Your task to perform on an android device: Open display settings Image 0: 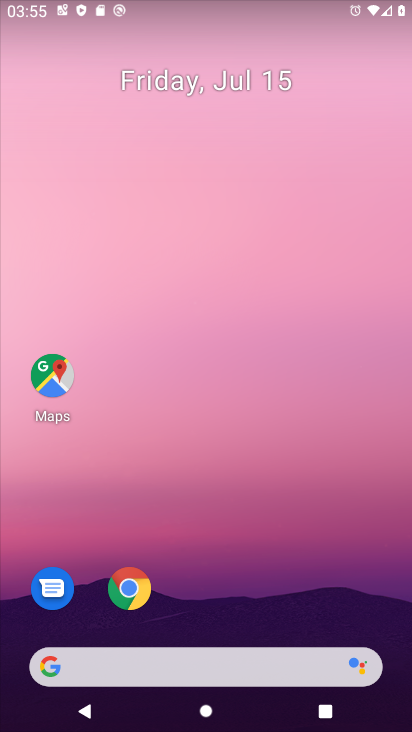
Step 0: drag from (208, 658) to (244, 141)
Your task to perform on an android device: Open display settings Image 1: 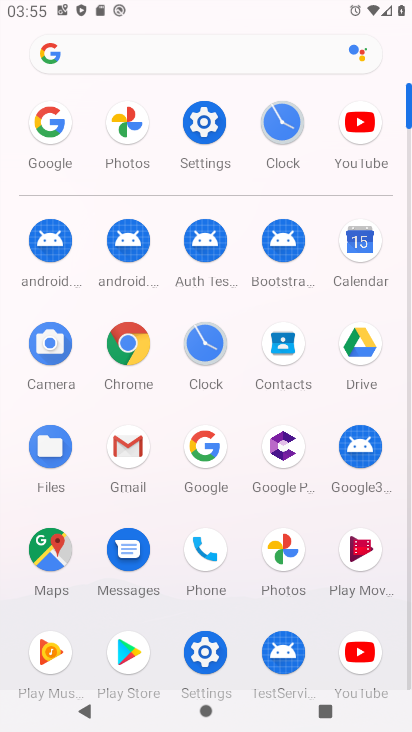
Step 1: click (203, 120)
Your task to perform on an android device: Open display settings Image 2: 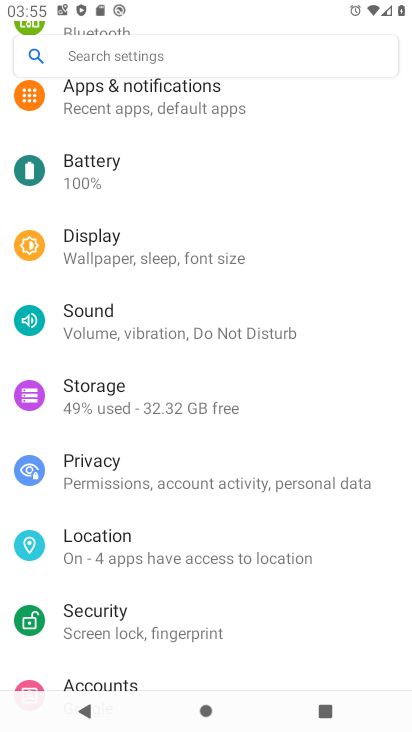
Step 2: click (108, 241)
Your task to perform on an android device: Open display settings Image 3: 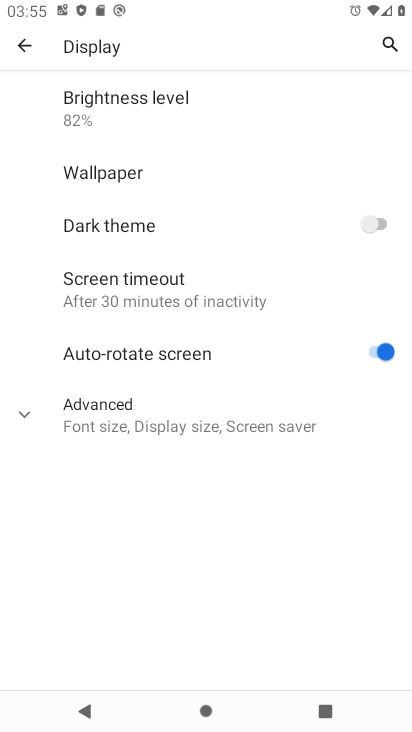
Step 3: task complete